Your task to perform on an android device: Go to internet settings Image 0: 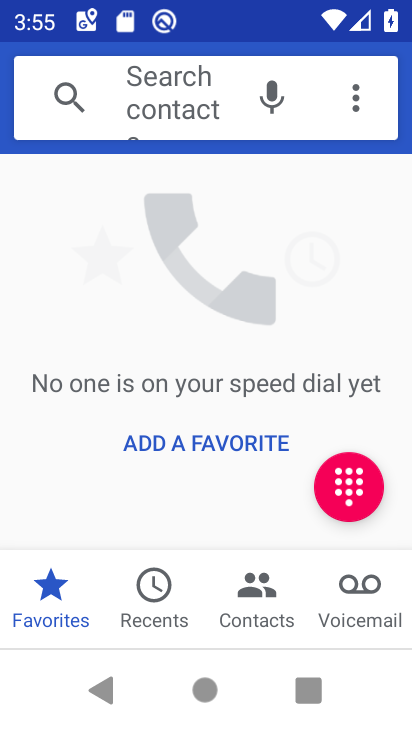
Step 0: press home button
Your task to perform on an android device: Go to internet settings Image 1: 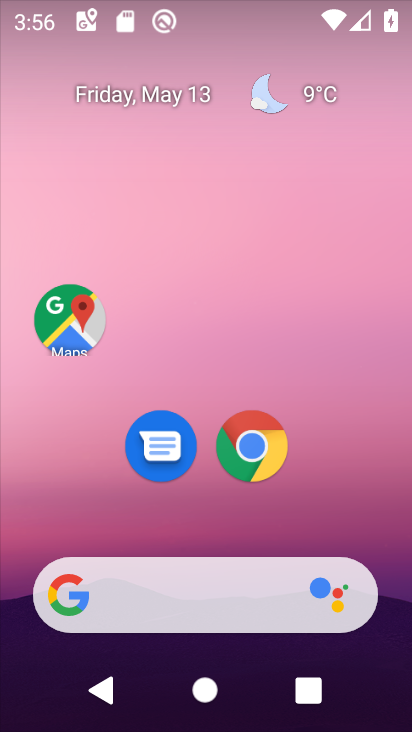
Step 1: drag from (235, 530) to (262, 29)
Your task to perform on an android device: Go to internet settings Image 2: 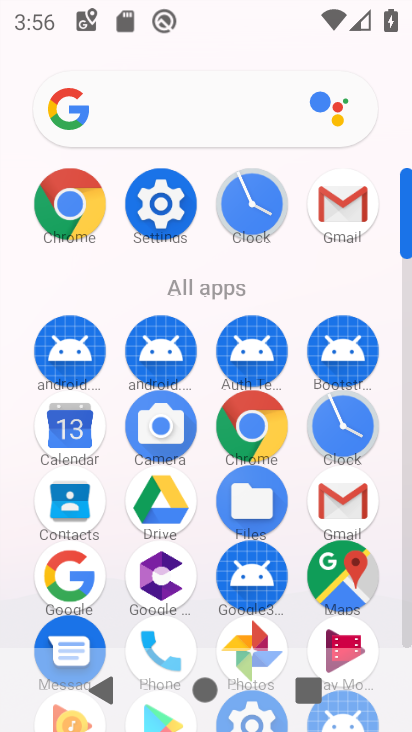
Step 2: click (166, 209)
Your task to perform on an android device: Go to internet settings Image 3: 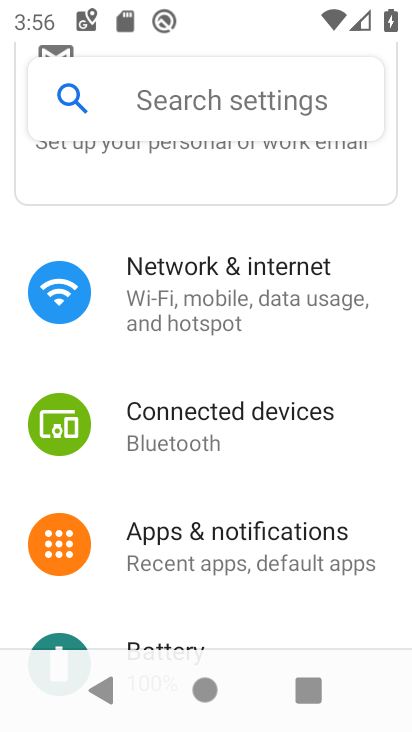
Step 3: click (162, 279)
Your task to perform on an android device: Go to internet settings Image 4: 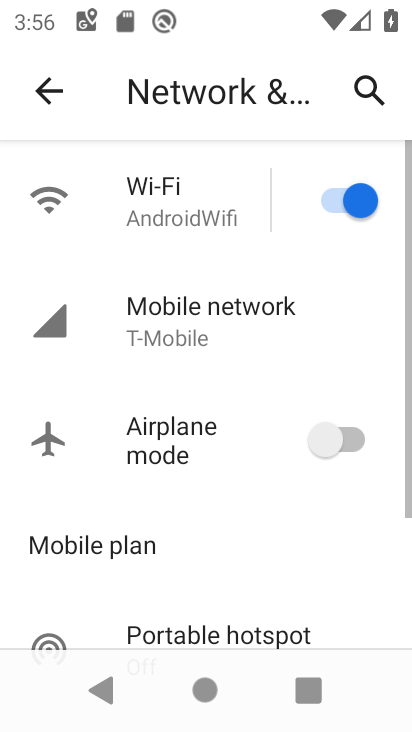
Step 4: click (130, 327)
Your task to perform on an android device: Go to internet settings Image 5: 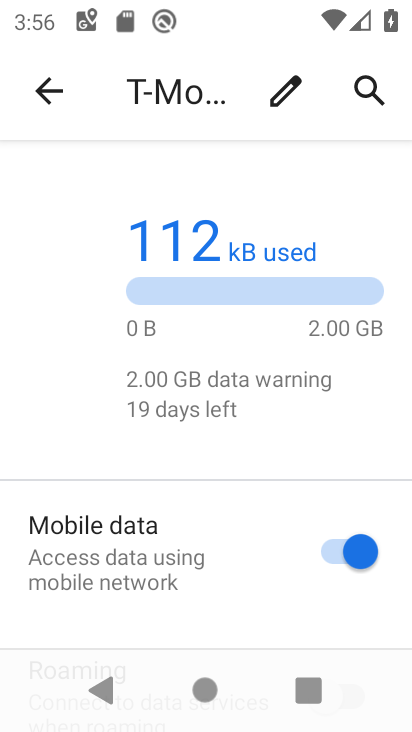
Step 5: task complete